Your task to perform on an android device: Open settings on Google Maps Image 0: 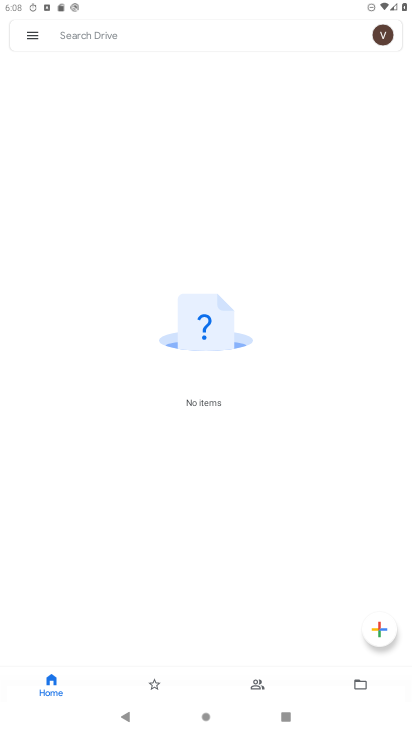
Step 0: press home button
Your task to perform on an android device: Open settings on Google Maps Image 1: 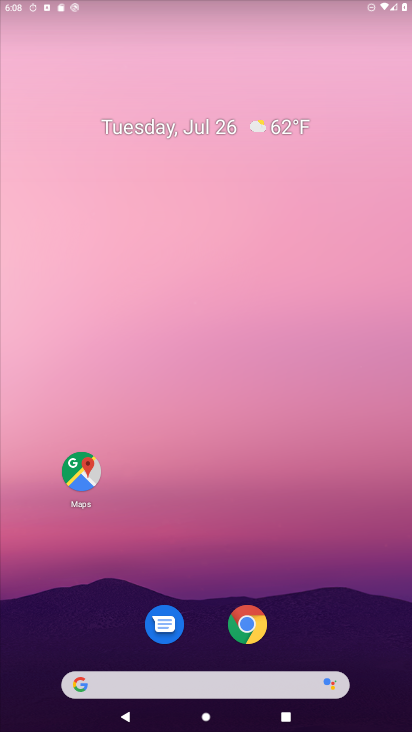
Step 1: drag from (252, 698) to (238, 47)
Your task to perform on an android device: Open settings on Google Maps Image 2: 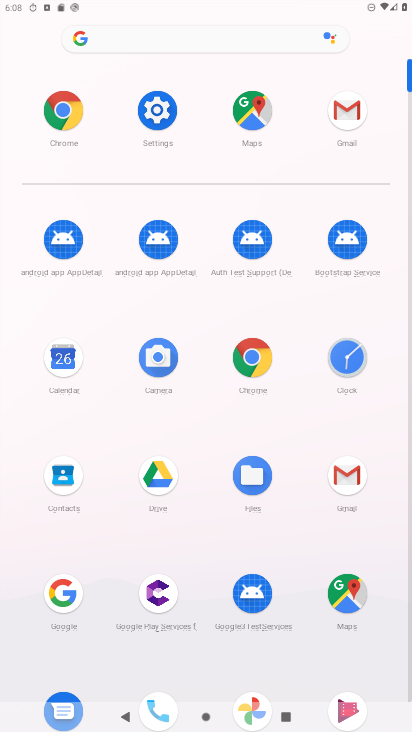
Step 2: click (338, 592)
Your task to perform on an android device: Open settings on Google Maps Image 3: 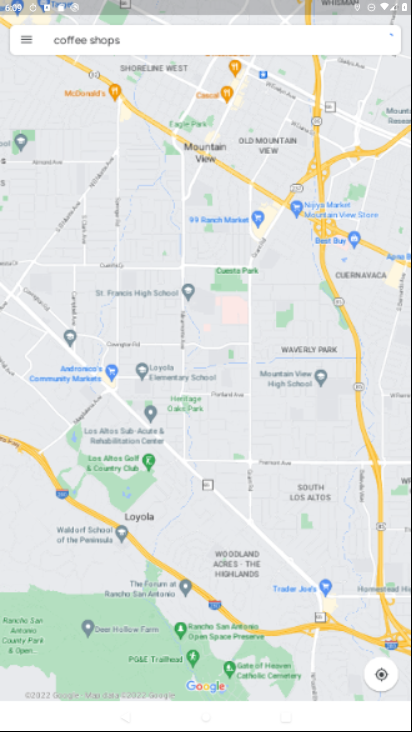
Step 3: click (20, 34)
Your task to perform on an android device: Open settings on Google Maps Image 4: 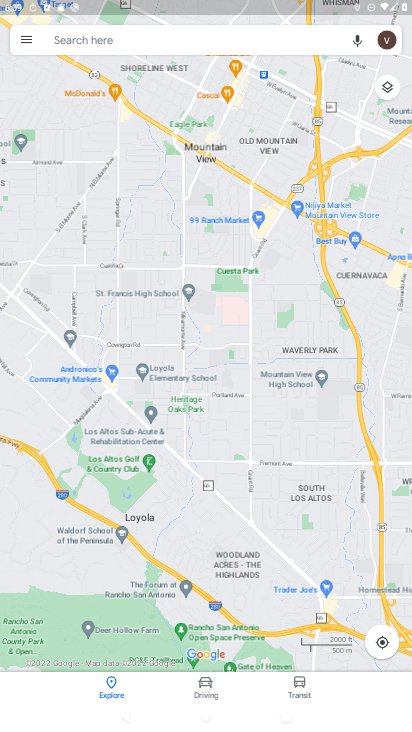
Step 4: press back button
Your task to perform on an android device: Open settings on Google Maps Image 5: 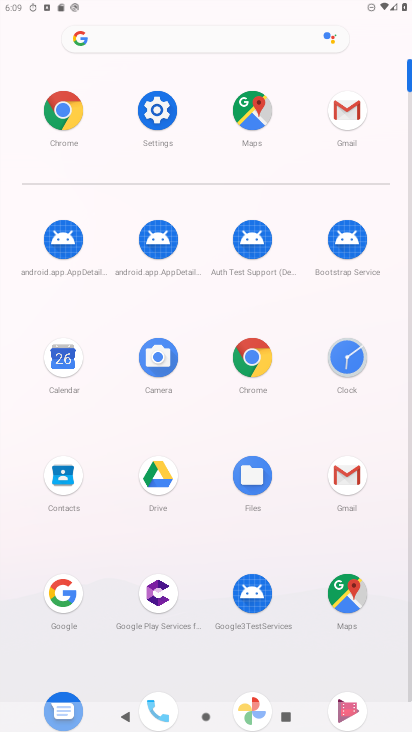
Step 5: click (352, 593)
Your task to perform on an android device: Open settings on Google Maps Image 6: 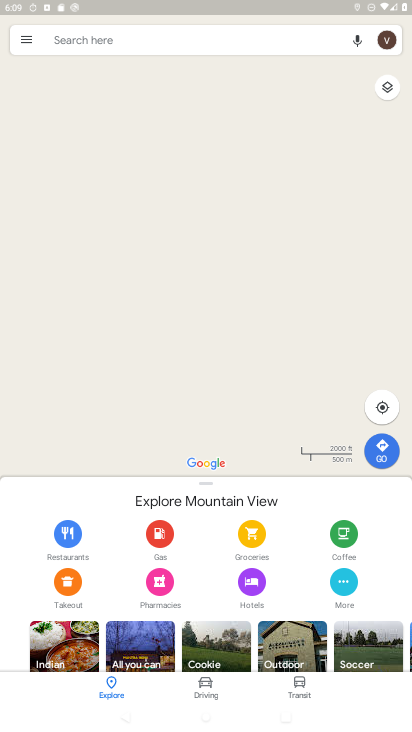
Step 6: click (26, 32)
Your task to perform on an android device: Open settings on Google Maps Image 7: 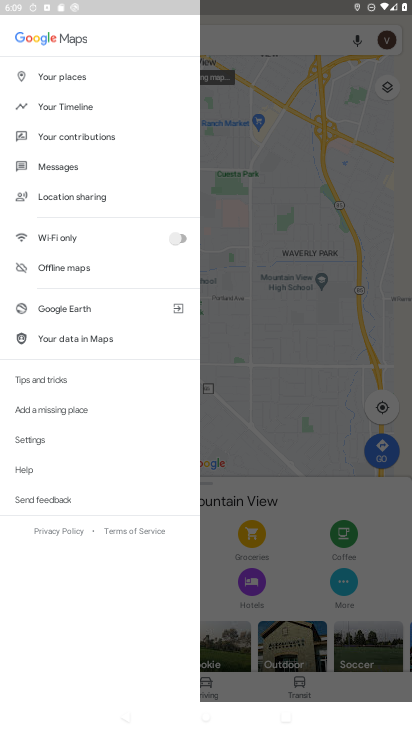
Step 7: click (94, 108)
Your task to perform on an android device: Open settings on Google Maps Image 8: 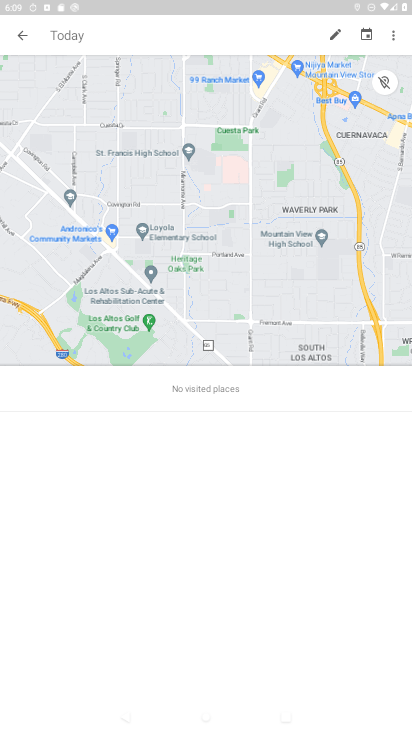
Step 8: click (388, 34)
Your task to perform on an android device: Open settings on Google Maps Image 9: 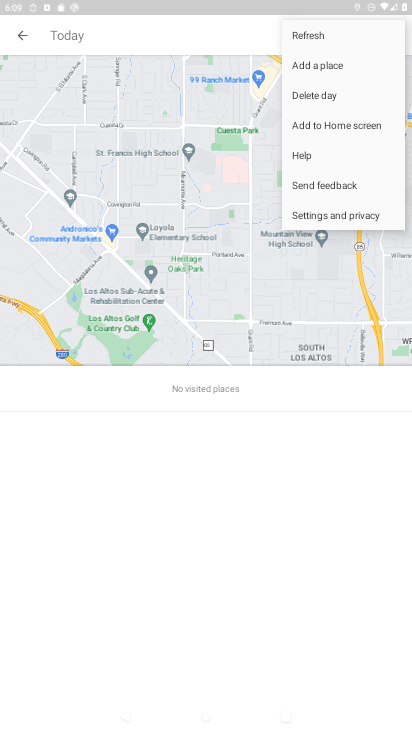
Step 9: click (332, 221)
Your task to perform on an android device: Open settings on Google Maps Image 10: 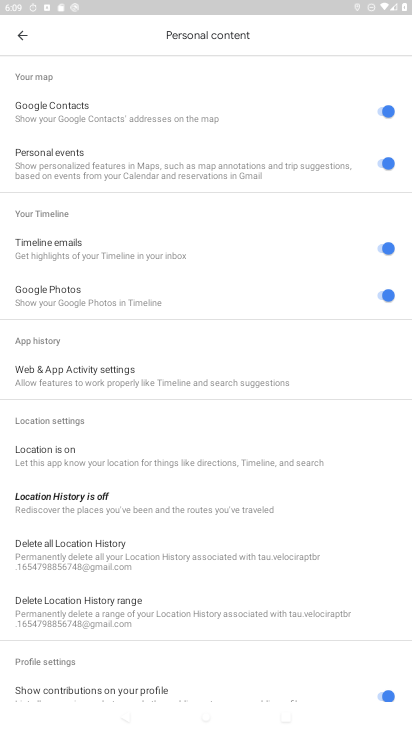
Step 10: task complete